Your task to perform on an android device: add a contact in the contacts app Image 0: 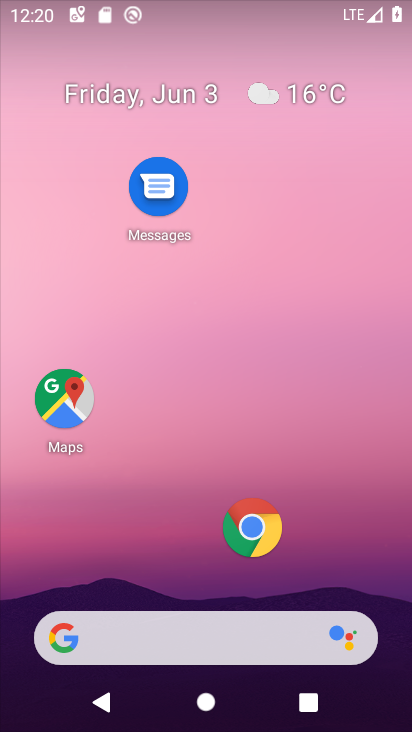
Step 0: drag from (203, 579) to (242, 68)
Your task to perform on an android device: add a contact in the contacts app Image 1: 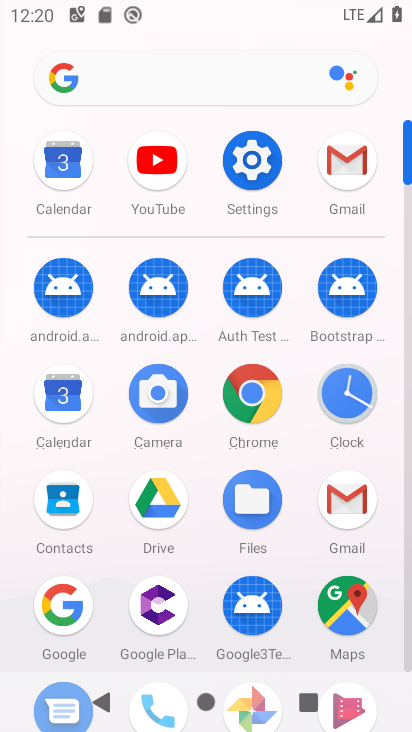
Step 1: click (60, 492)
Your task to perform on an android device: add a contact in the contacts app Image 2: 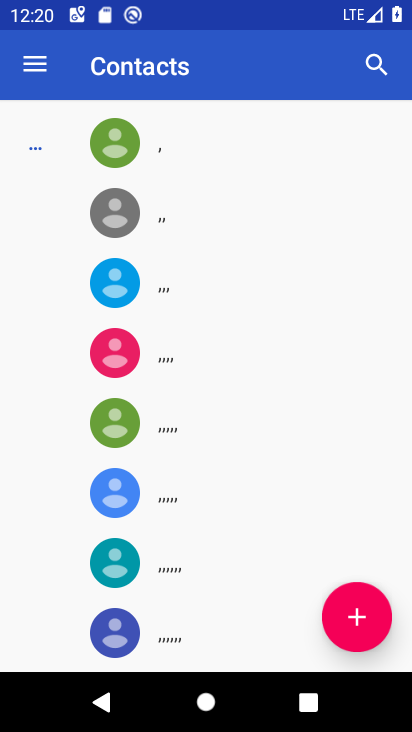
Step 2: click (356, 607)
Your task to perform on an android device: add a contact in the contacts app Image 3: 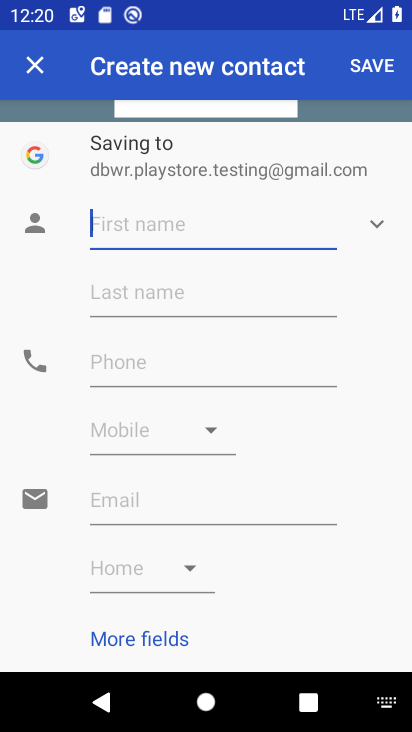
Step 3: type "gctdxesd"
Your task to perform on an android device: add a contact in the contacts app Image 4: 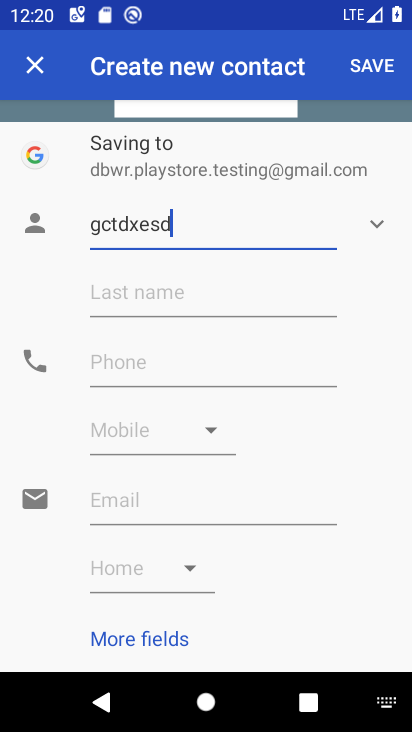
Step 4: click (378, 70)
Your task to perform on an android device: add a contact in the contacts app Image 5: 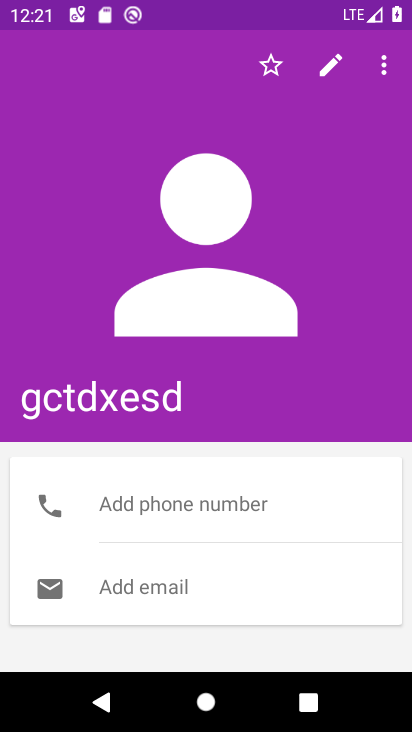
Step 5: task complete